Your task to perform on an android device: Search for seafood restaurants on Google Maps Image 0: 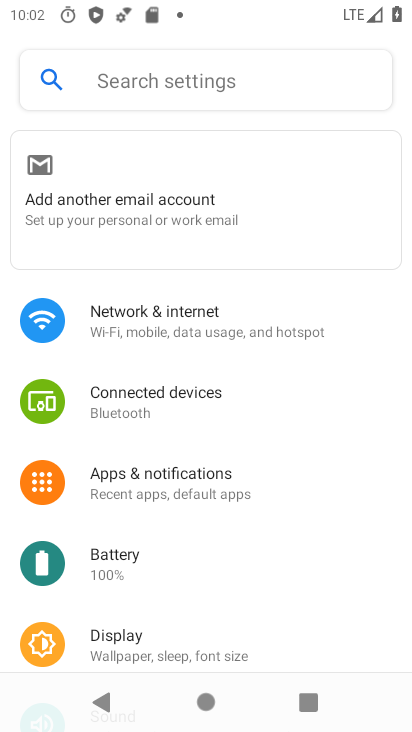
Step 0: press home button
Your task to perform on an android device: Search for seafood restaurants on Google Maps Image 1: 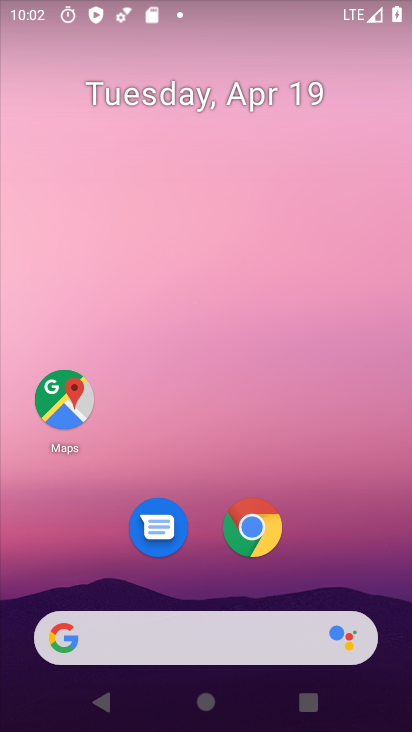
Step 1: drag from (278, 676) to (350, 153)
Your task to perform on an android device: Search for seafood restaurants on Google Maps Image 2: 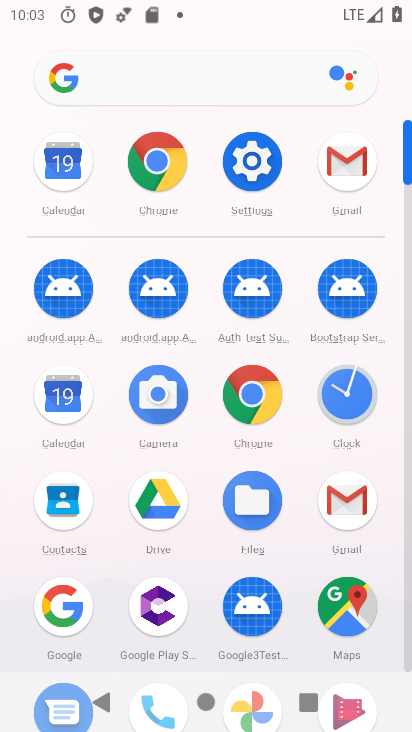
Step 2: click (341, 597)
Your task to perform on an android device: Search for seafood restaurants on Google Maps Image 3: 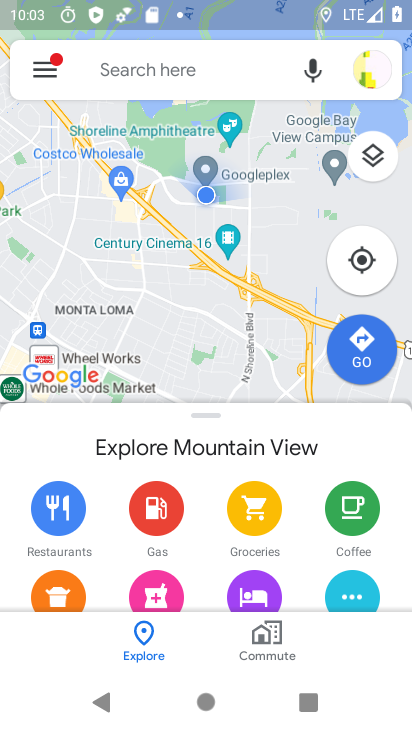
Step 3: click (174, 71)
Your task to perform on an android device: Search for seafood restaurants on Google Maps Image 4: 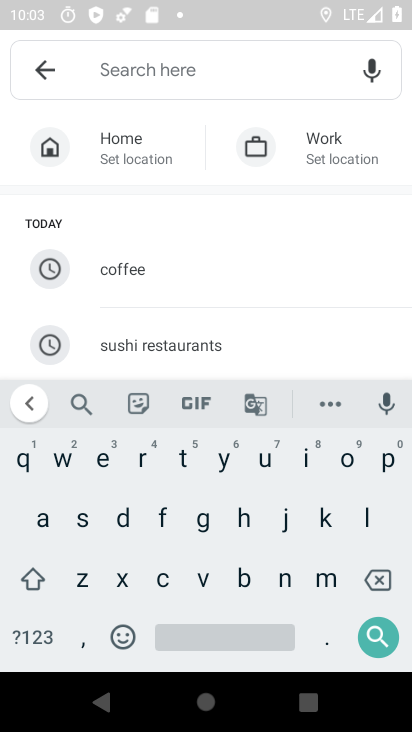
Step 4: drag from (161, 329) to (203, 211)
Your task to perform on an android device: Search for seafood restaurants on Google Maps Image 5: 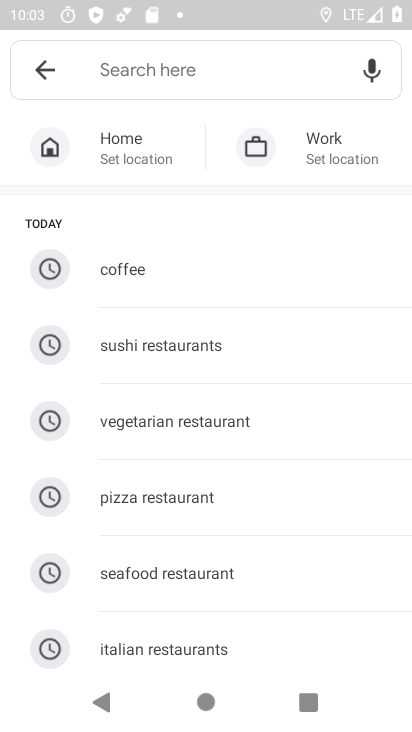
Step 5: click (137, 567)
Your task to perform on an android device: Search for seafood restaurants on Google Maps Image 6: 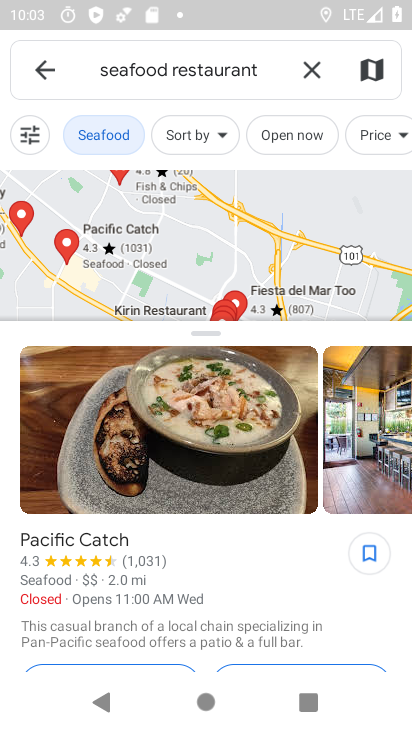
Step 6: click (217, 246)
Your task to perform on an android device: Search for seafood restaurants on Google Maps Image 7: 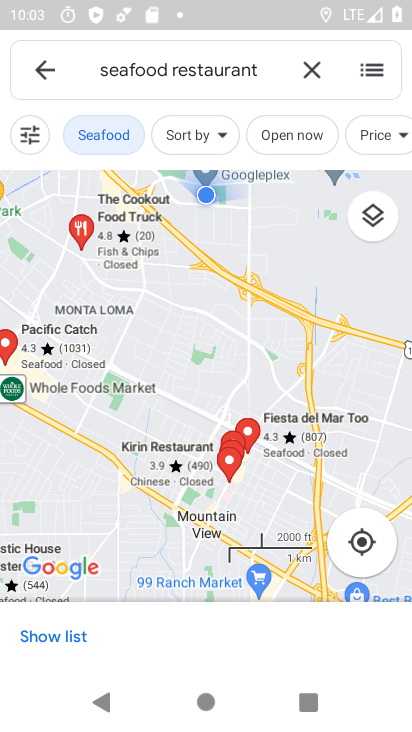
Step 7: task complete